Your task to perform on an android device: check out phone information Image 0: 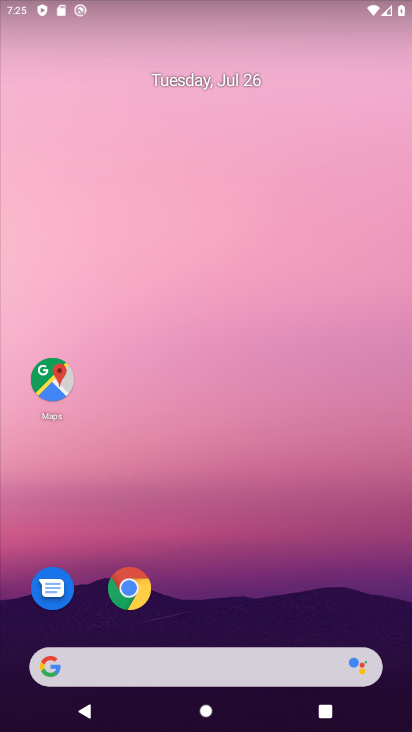
Step 0: drag from (262, 490) to (230, 117)
Your task to perform on an android device: check out phone information Image 1: 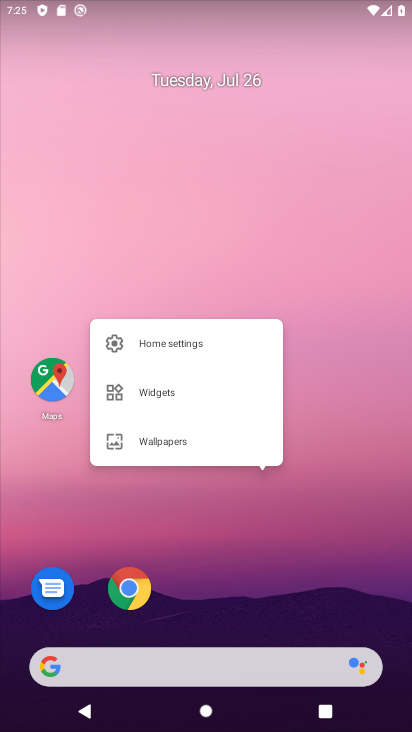
Step 1: click (269, 512)
Your task to perform on an android device: check out phone information Image 2: 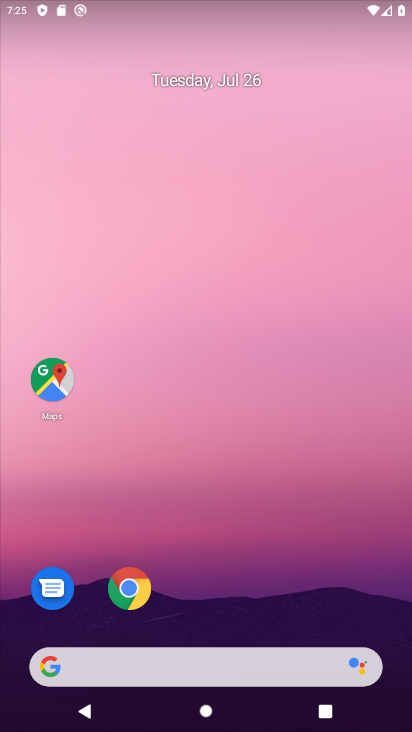
Step 2: drag from (269, 512) to (294, 14)
Your task to perform on an android device: check out phone information Image 3: 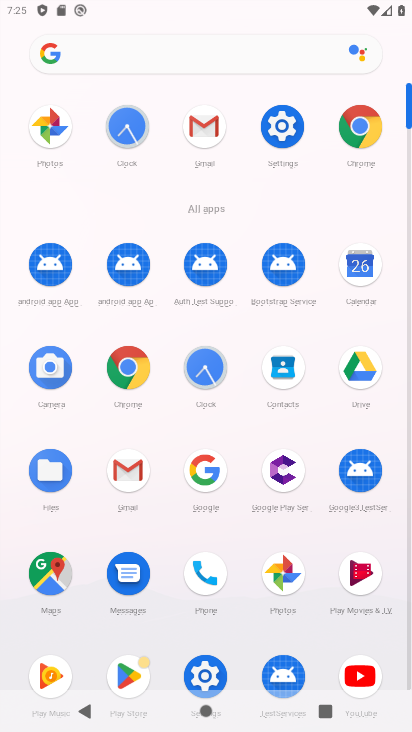
Step 3: click (278, 138)
Your task to perform on an android device: check out phone information Image 4: 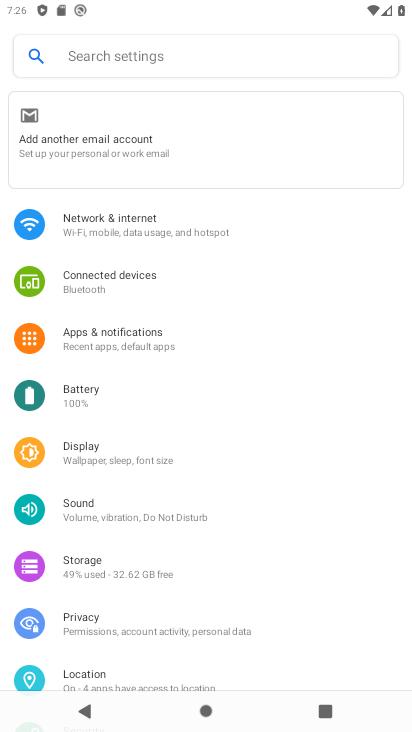
Step 4: drag from (170, 529) to (202, 133)
Your task to perform on an android device: check out phone information Image 5: 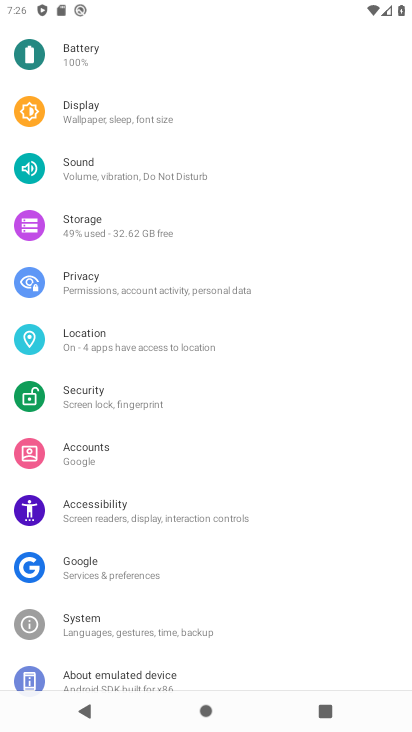
Step 5: drag from (185, 495) to (193, 284)
Your task to perform on an android device: check out phone information Image 6: 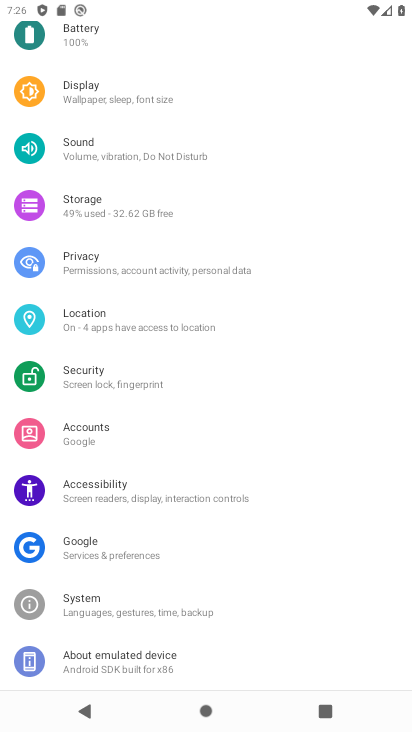
Step 6: click (115, 664)
Your task to perform on an android device: check out phone information Image 7: 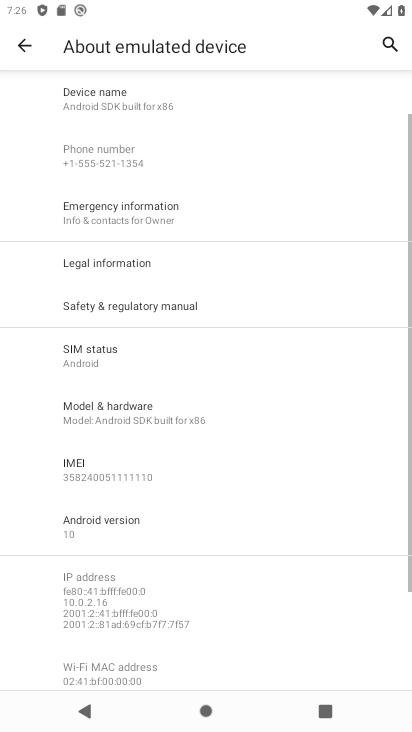
Step 7: task complete